Your task to perform on an android device: Open Google Chrome and open the bookmarks view Image 0: 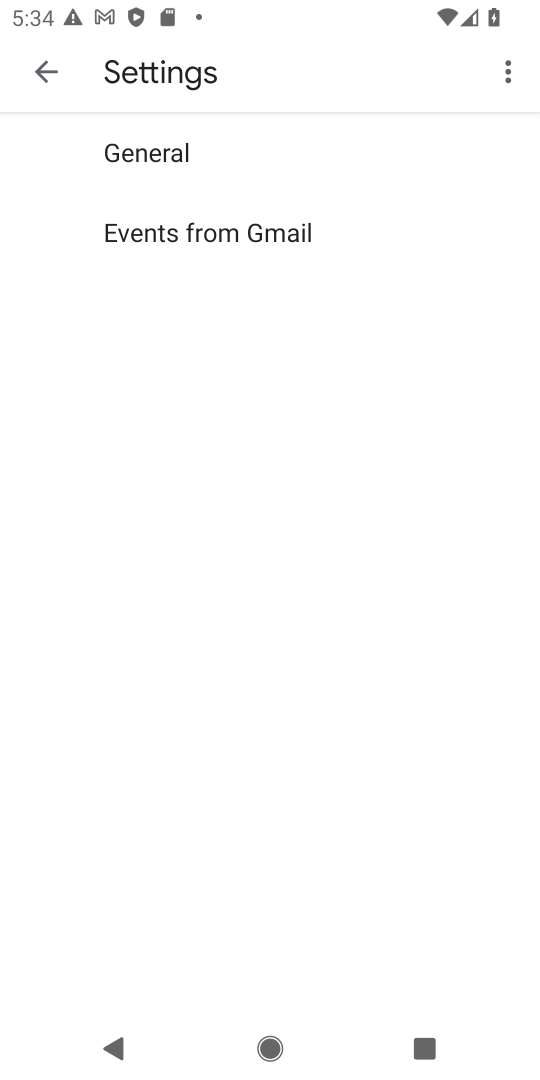
Step 0: press home button
Your task to perform on an android device: Open Google Chrome and open the bookmarks view Image 1: 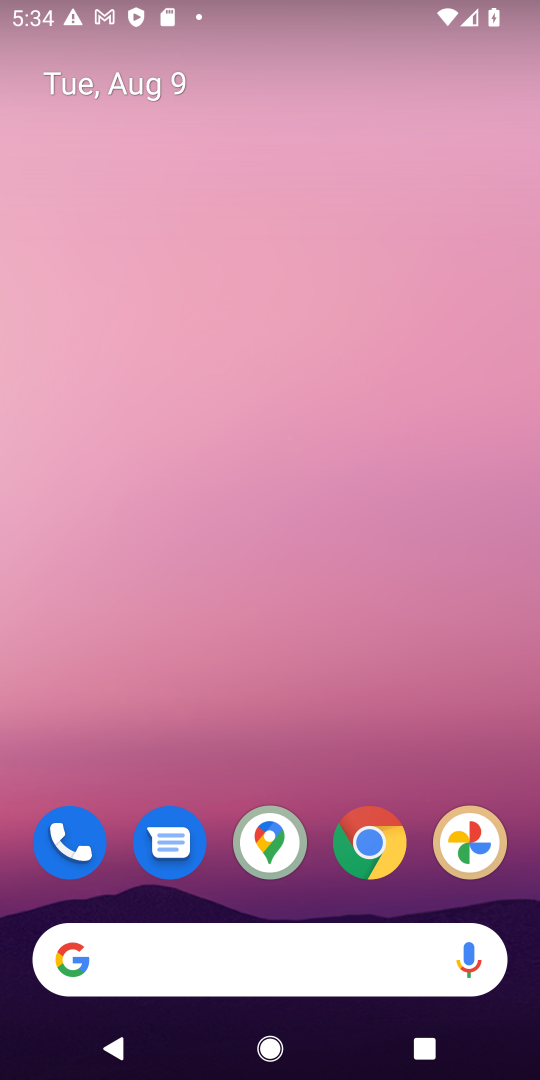
Step 1: drag from (285, 839) to (139, 13)
Your task to perform on an android device: Open Google Chrome and open the bookmarks view Image 2: 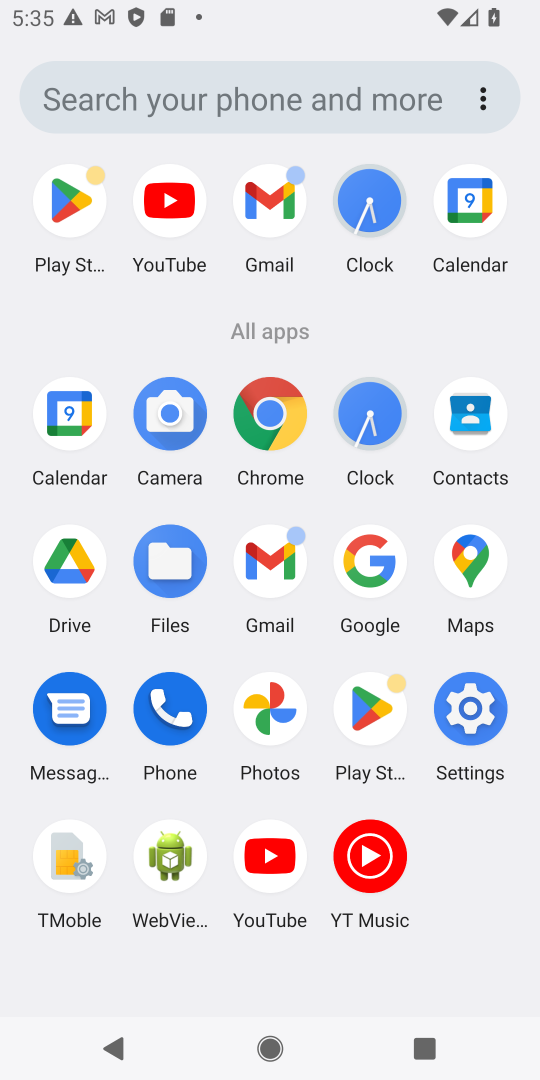
Step 2: click (268, 396)
Your task to perform on an android device: Open Google Chrome and open the bookmarks view Image 3: 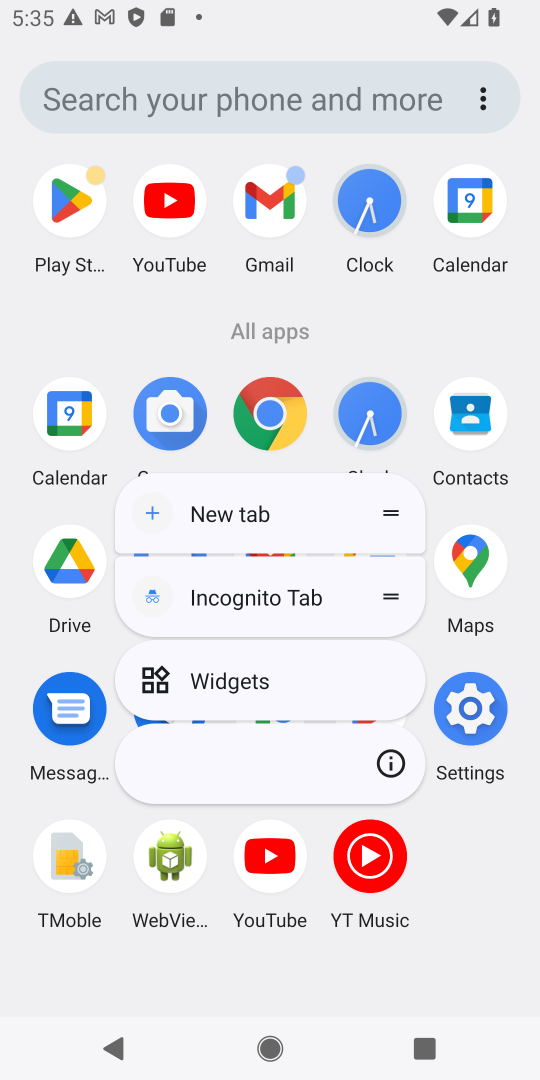
Step 3: click (262, 421)
Your task to perform on an android device: Open Google Chrome and open the bookmarks view Image 4: 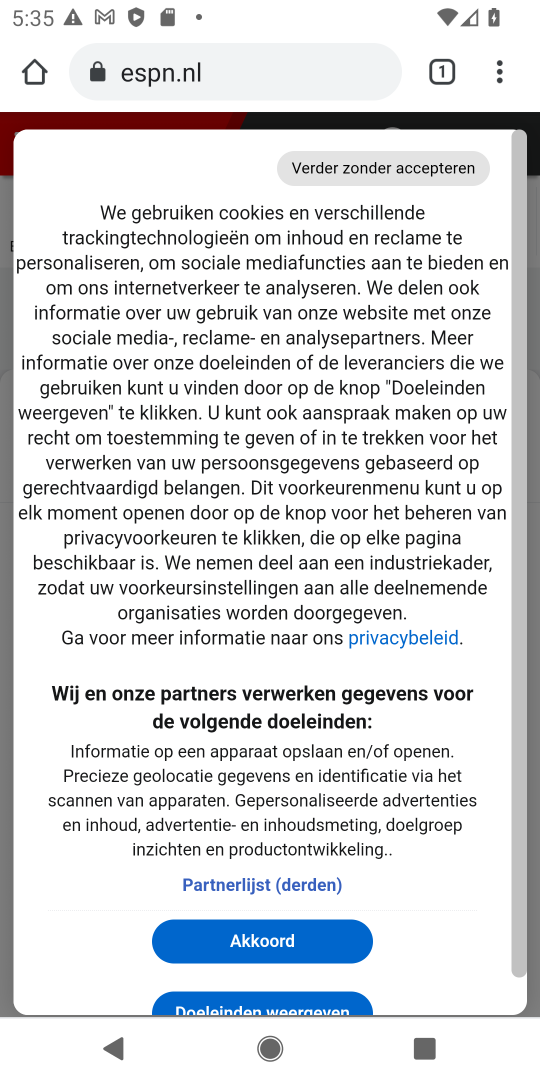
Step 4: drag from (493, 76) to (329, 426)
Your task to perform on an android device: Open Google Chrome and open the bookmarks view Image 5: 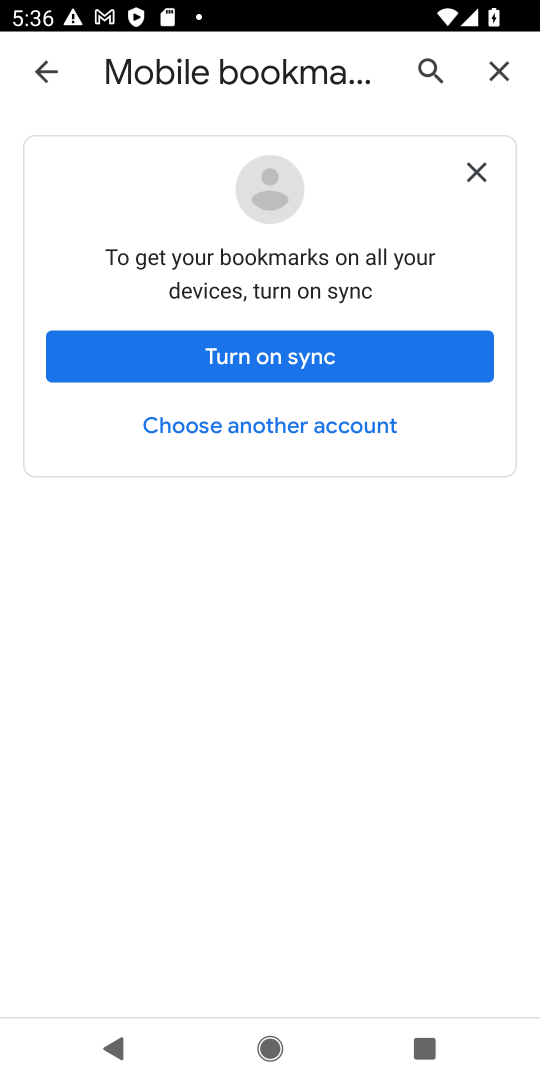
Step 5: click (220, 347)
Your task to perform on an android device: Open Google Chrome and open the bookmarks view Image 6: 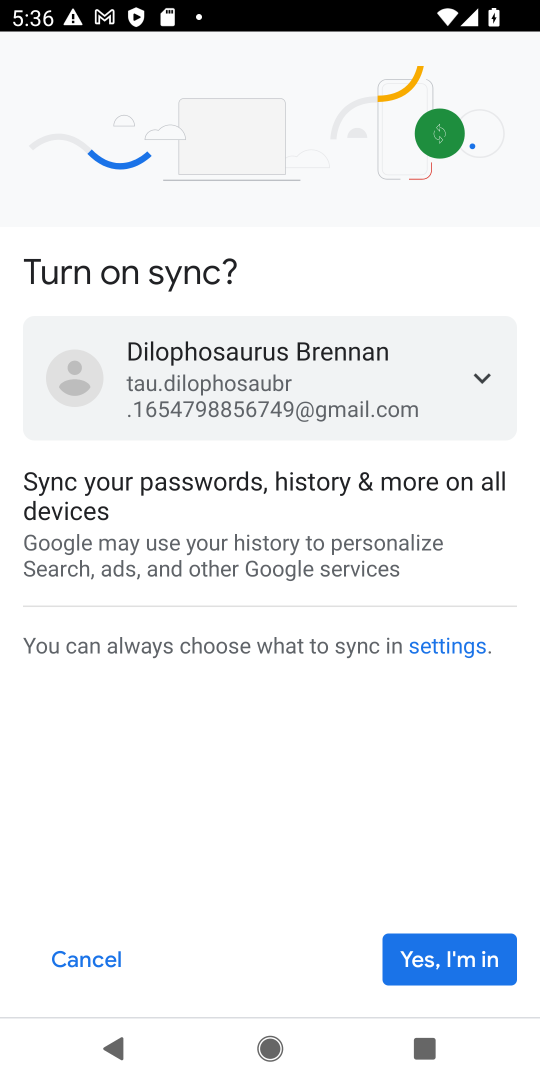
Step 6: click (442, 961)
Your task to perform on an android device: Open Google Chrome and open the bookmarks view Image 7: 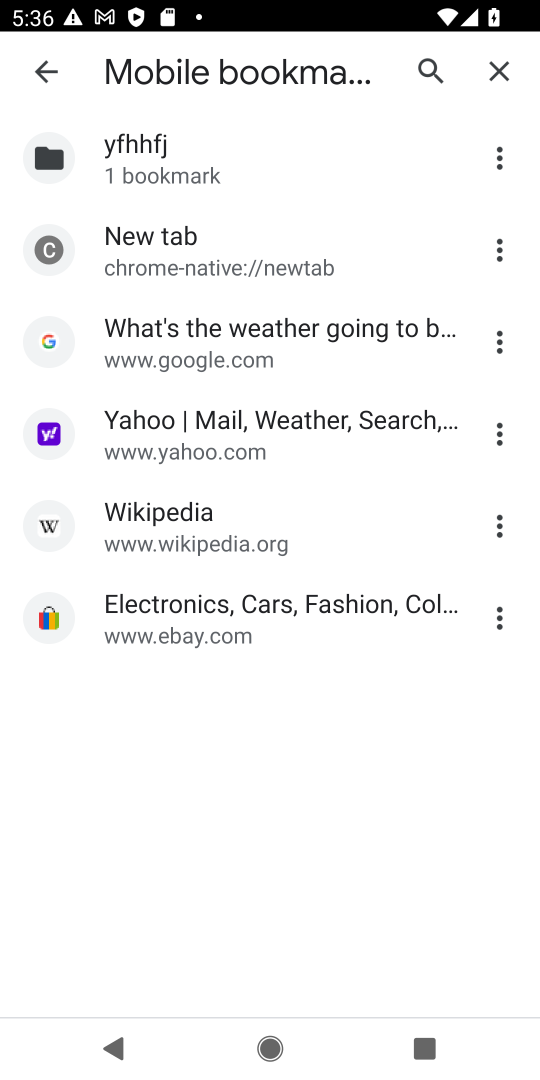
Step 7: task complete